Your task to perform on an android device: open app "Lyft - Rideshare, Bikes, Scooters & Transit" Image 0: 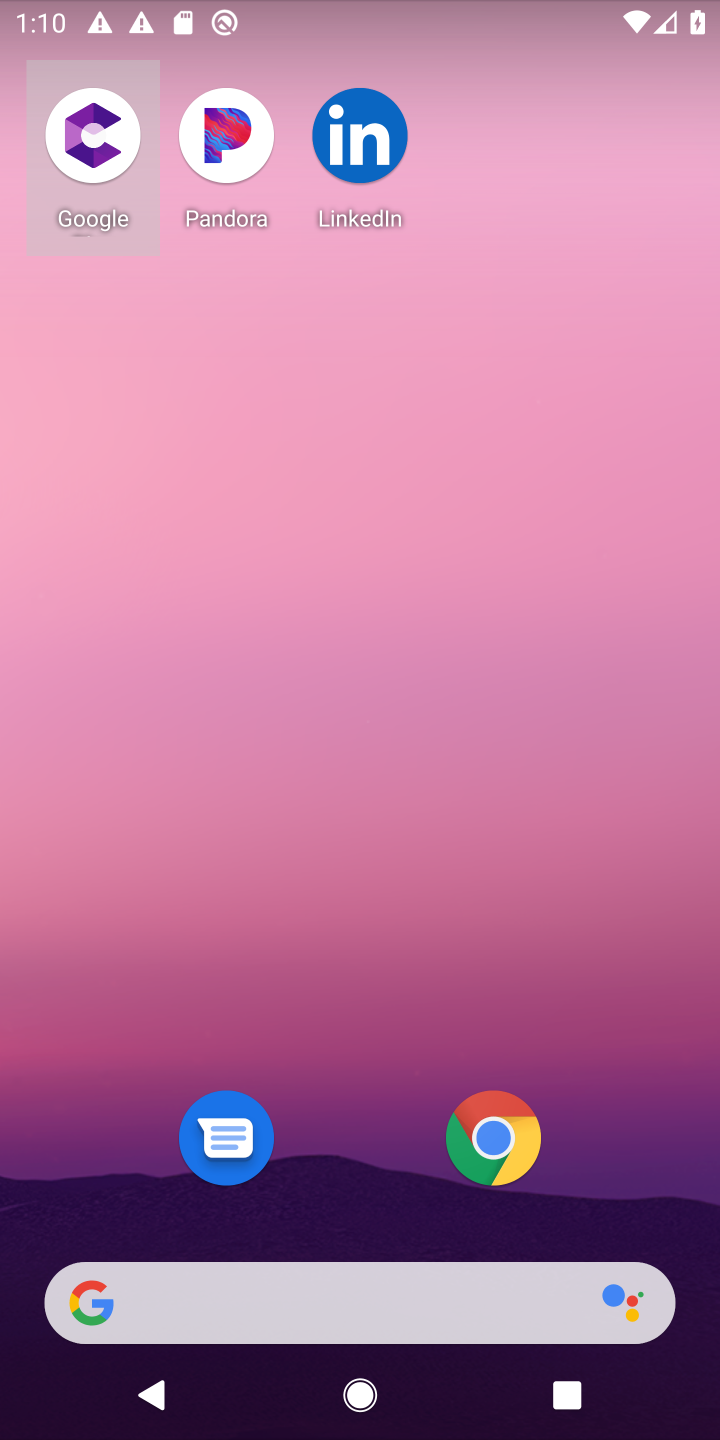
Step 0: drag from (605, 1075) to (622, 107)
Your task to perform on an android device: open app "Lyft - Rideshare, Bikes, Scooters & Transit" Image 1: 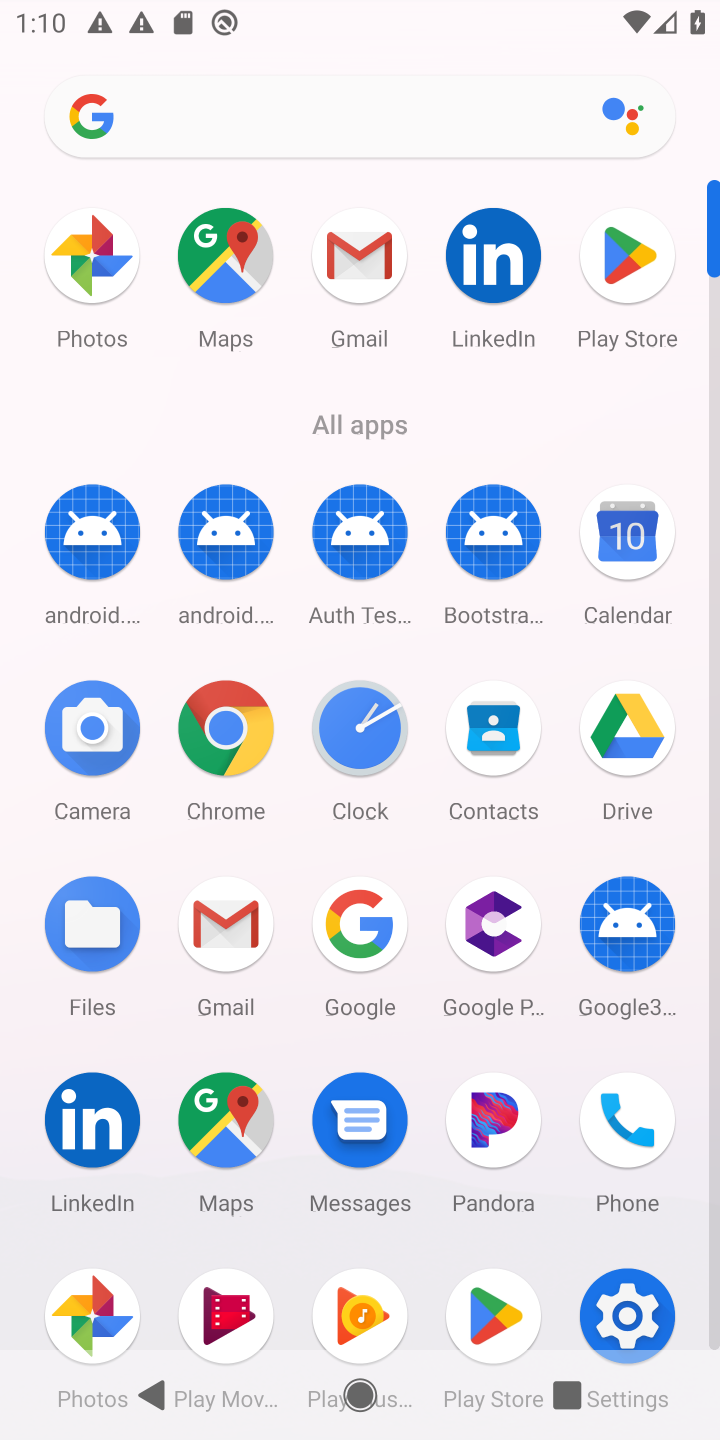
Step 1: click (643, 244)
Your task to perform on an android device: open app "Lyft - Rideshare, Bikes, Scooters & Transit" Image 2: 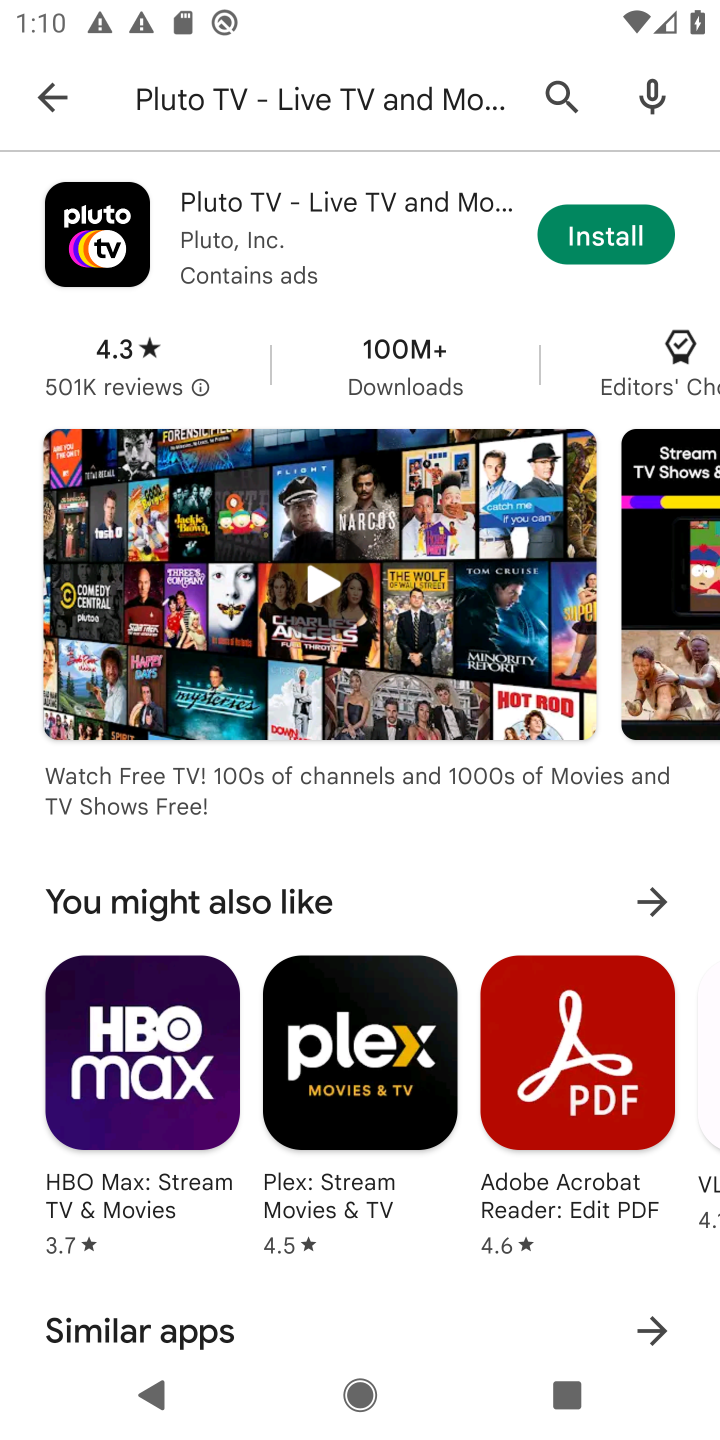
Step 2: click (568, 84)
Your task to perform on an android device: open app "Lyft - Rideshare, Bikes, Scooters & Transit" Image 3: 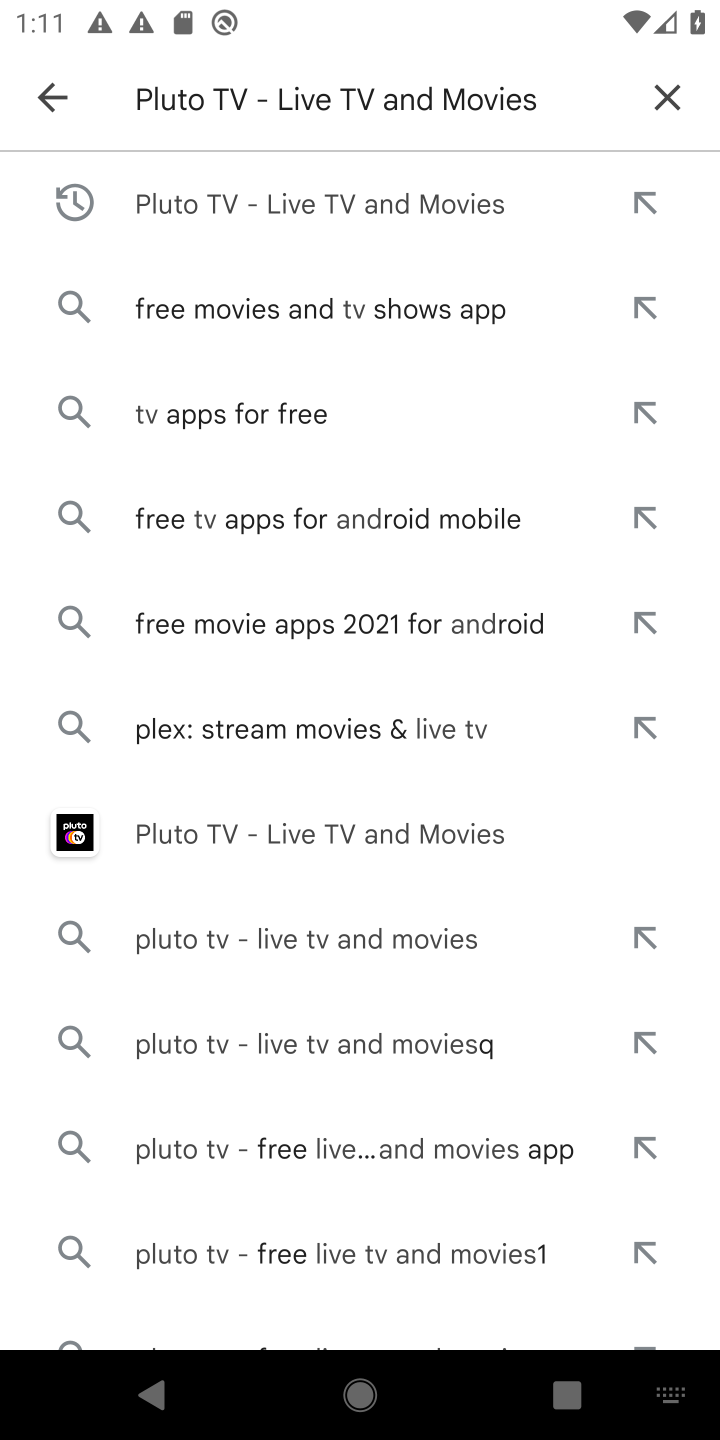
Step 3: click (667, 99)
Your task to perform on an android device: open app "Lyft - Rideshare, Bikes, Scooters & Transit" Image 4: 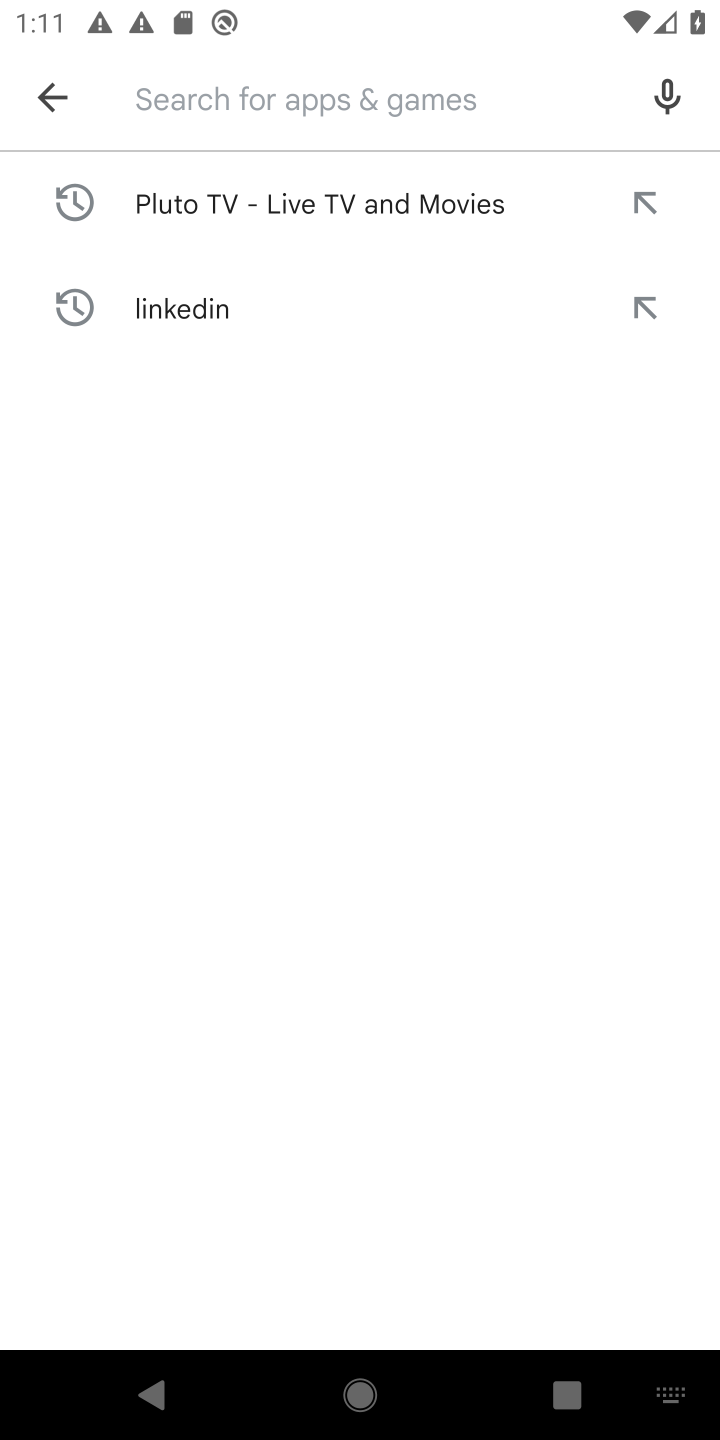
Step 4: type "Lyft - Rideshare, Bikes, Scooters & Transit"
Your task to perform on an android device: open app "Lyft - Rideshare, Bikes, Scooters & Transit" Image 5: 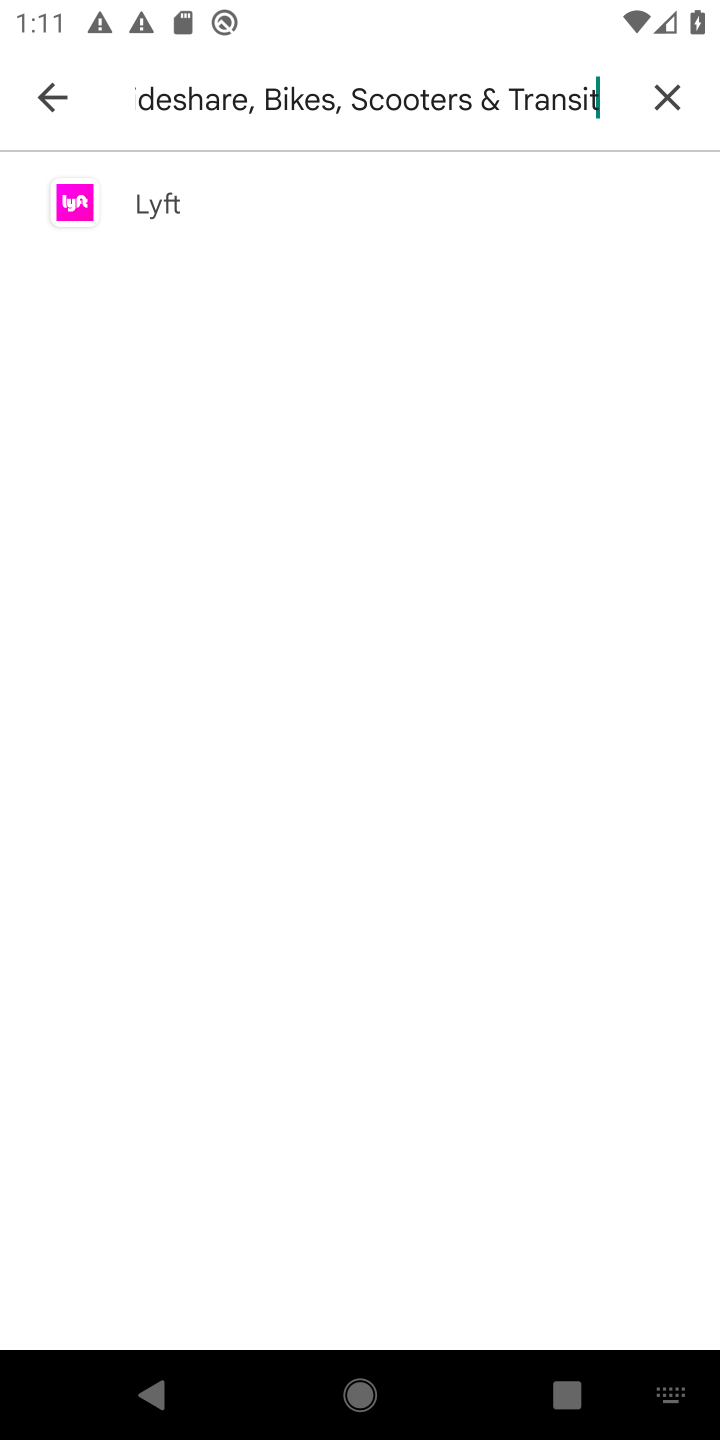
Step 5: press enter
Your task to perform on an android device: open app "Lyft - Rideshare, Bikes, Scooters & Transit" Image 6: 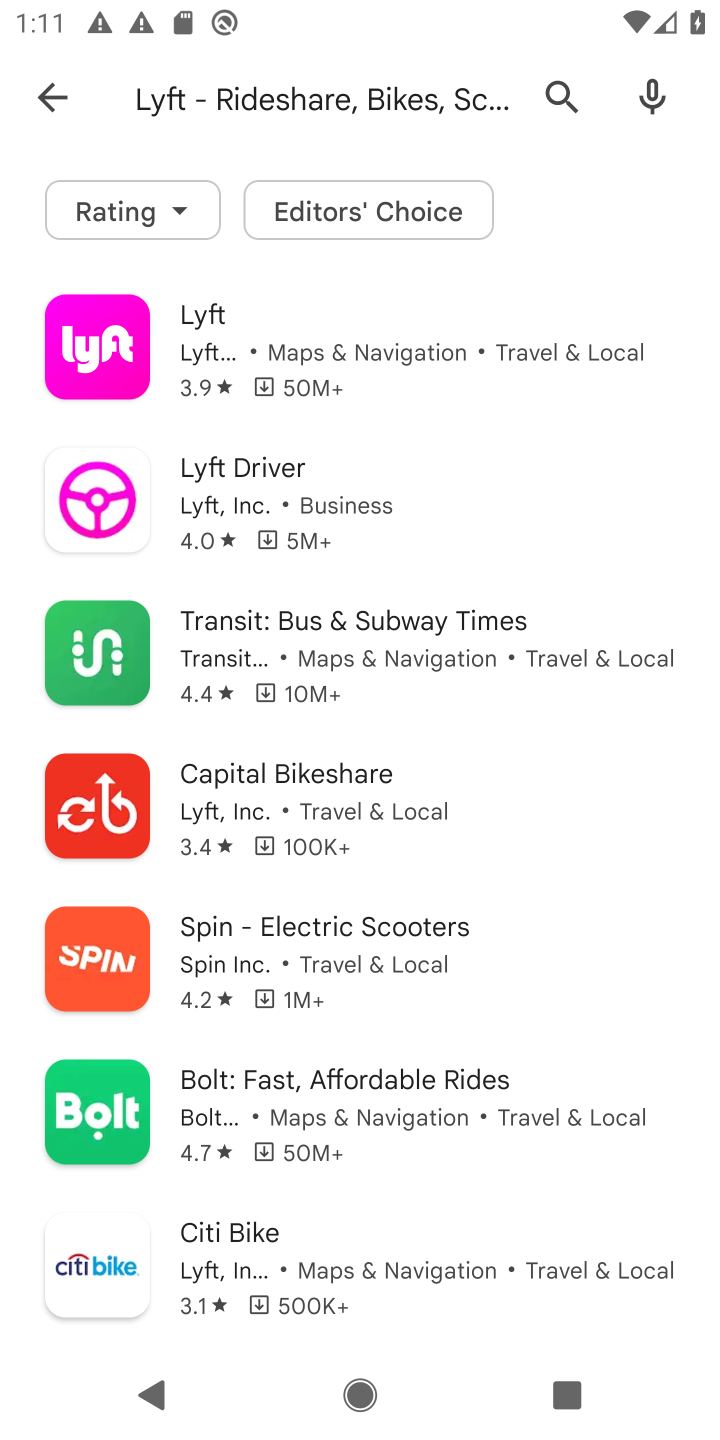
Step 6: click (287, 339)
Your task to perform on an android device: open app "Lyft - Rideshare, Bikes, Scooters & Transit" Image 7: 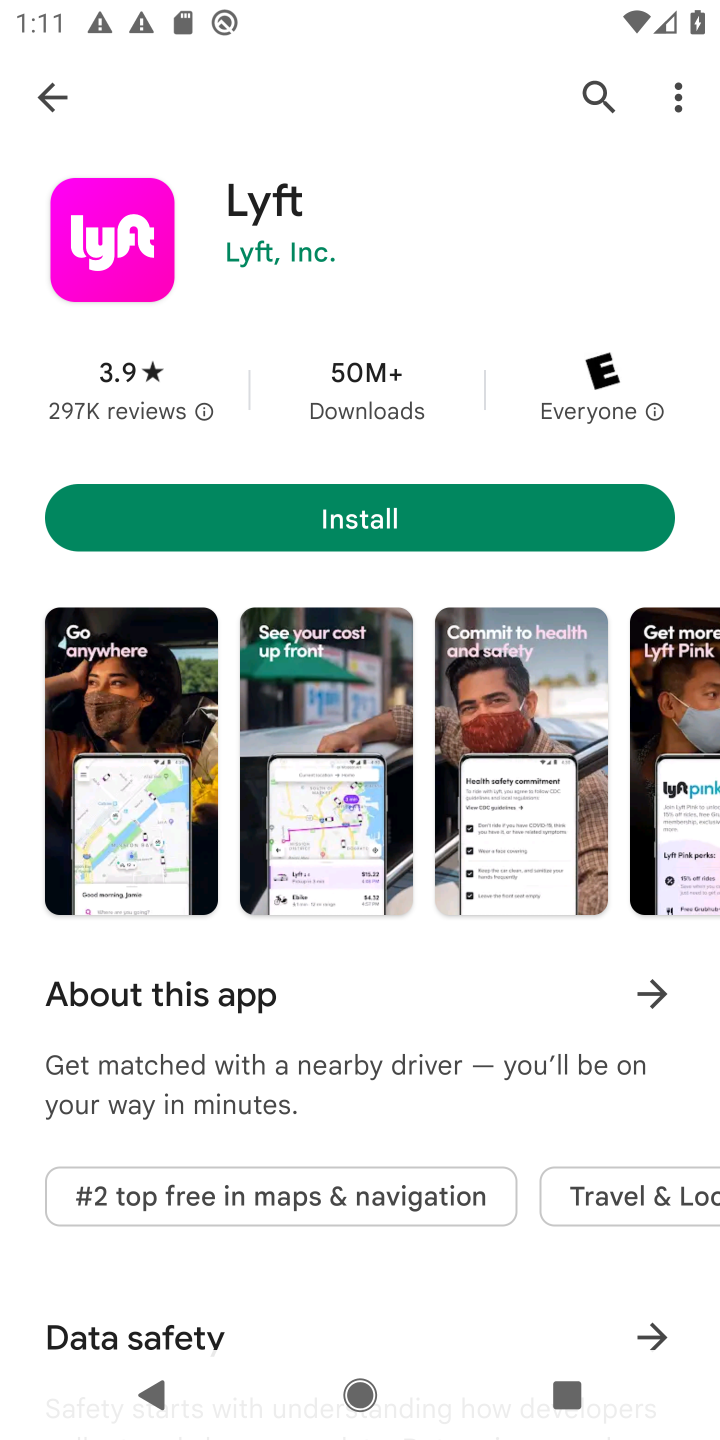
Step 7: task complete